Your task to perform on an android device: Go to settings Image 0: 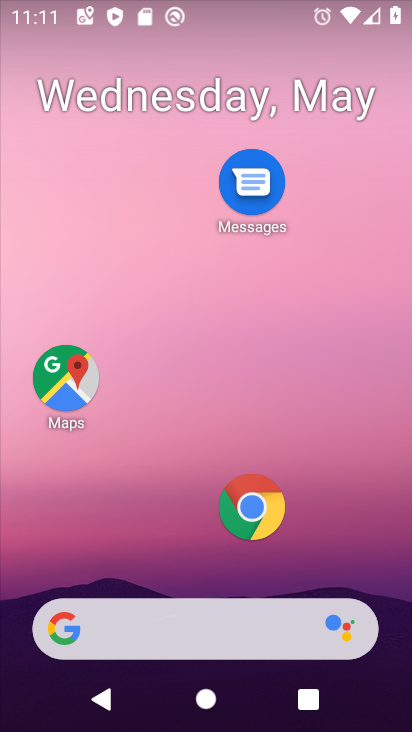
Step 0: drag from (199, 569) to (256, 58)
Your task to perform on an android device: Go to settings Image 1: 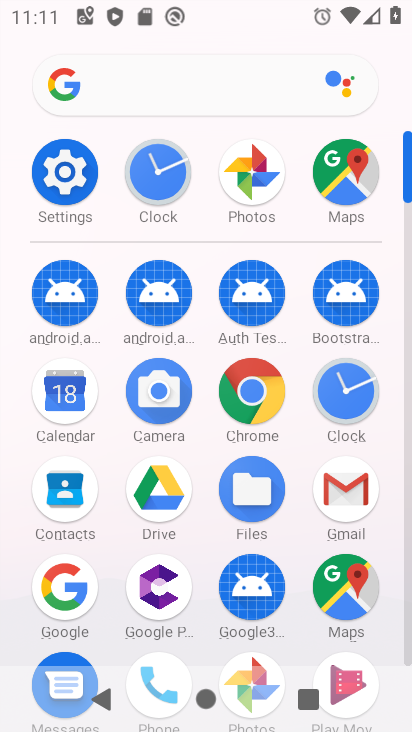
Step 1: click (69, 174)
Your task to perform on an android device: Go to settings Image 2: 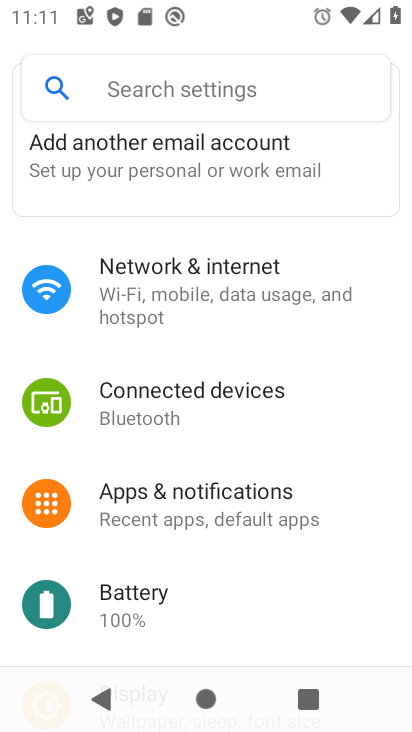
Step 2: task complete